Your task to perform on an android device: allow notifications from all sites in the chrome app Image 0: 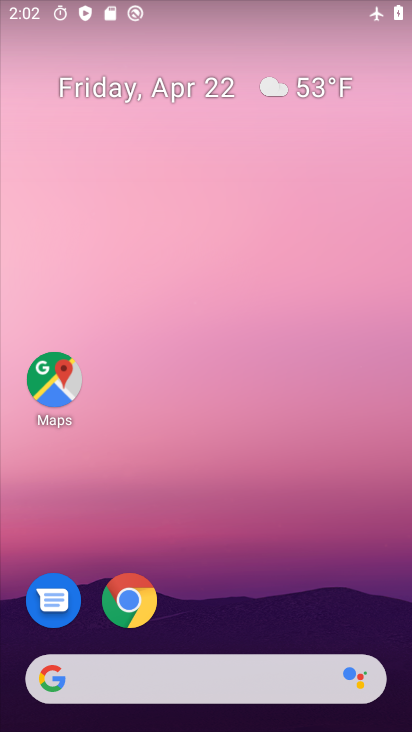
Step 0: click (132, 611)
Your task to perform on an android device: allow notifications from all sites in the chrome app Image 1: 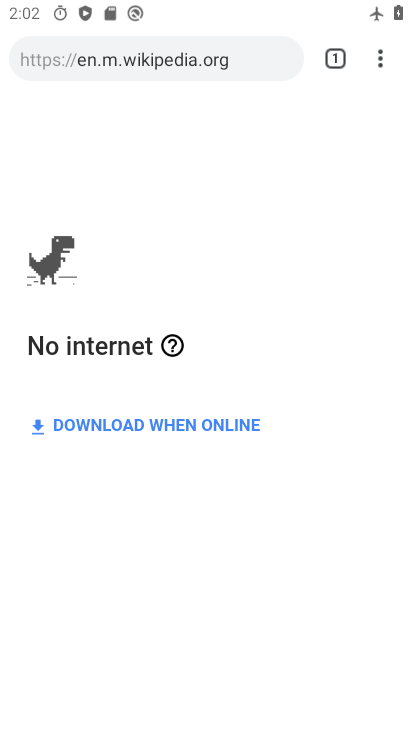
Step 1: drag from (380, 63) to (207, 616)
Your task to perform on an android device: allow notifications from all sites in the chrome app Image 2: 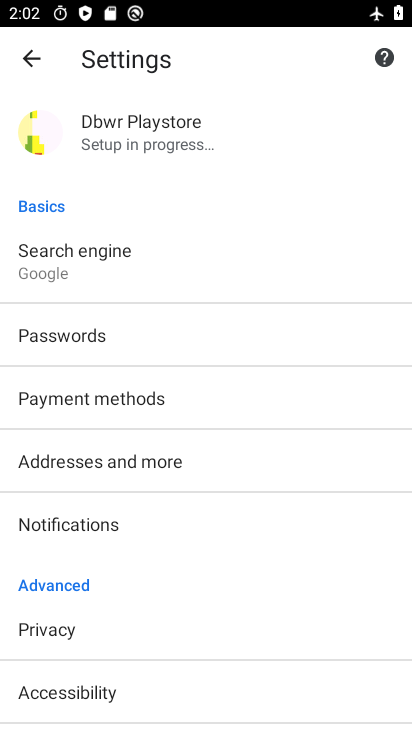
Step 2: drag from (170, 545) to (181, 269)
Your task to perform on an android device: allow notifications from all sites in the chrome app Image 3: 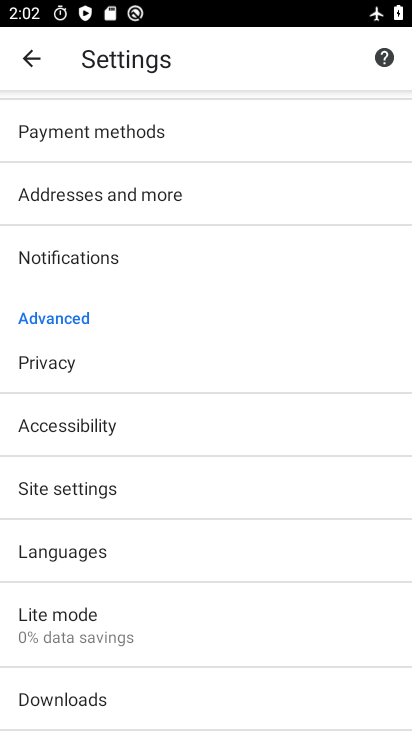
Step 3: click (76, 481)
Your task to perform on an android device: allow notifications from all sites in the chrome app Image 4: 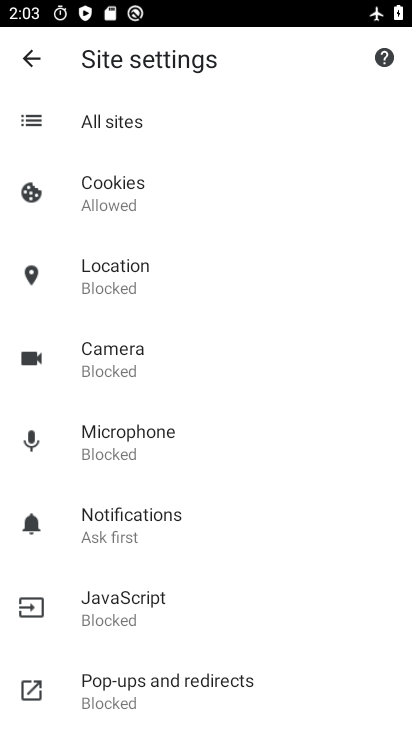
Step 4: click (127, 523)
Your task to perform on an android device: allow notifications from all sites in the chrome app Image 5: 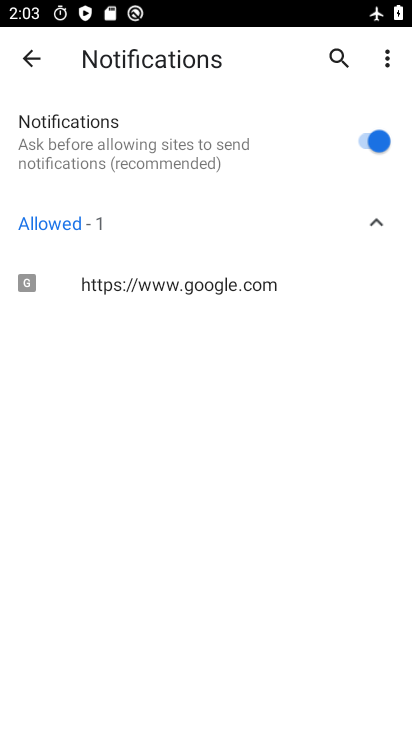
Step 5: task complete